Your task to perform on an android device: Open the phone app and click the voicemail tab. Image 0: 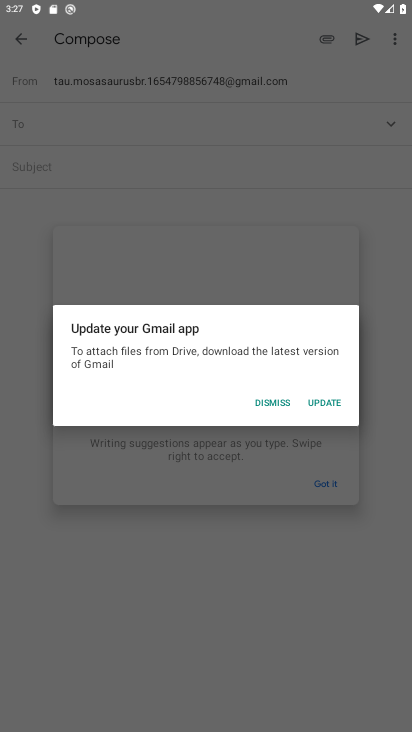
Step 0: press back button
Your task to perform on an android device: Open the phone app and click the voicemail tab. Image 1: 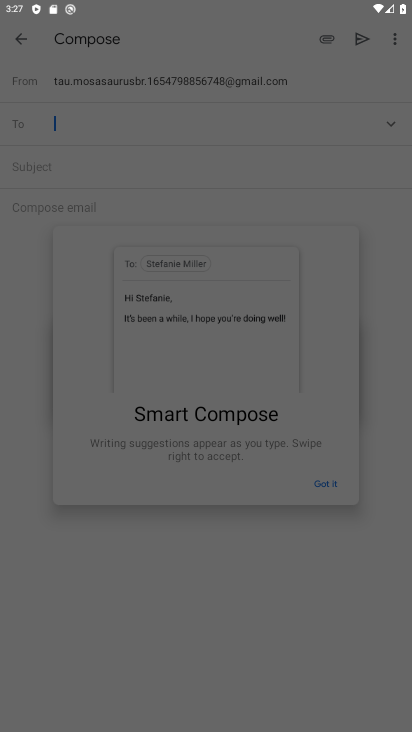
Step 1: press back button
Your task to perform on an android device: Open the phone app and click the voicemail tab. Image 2: 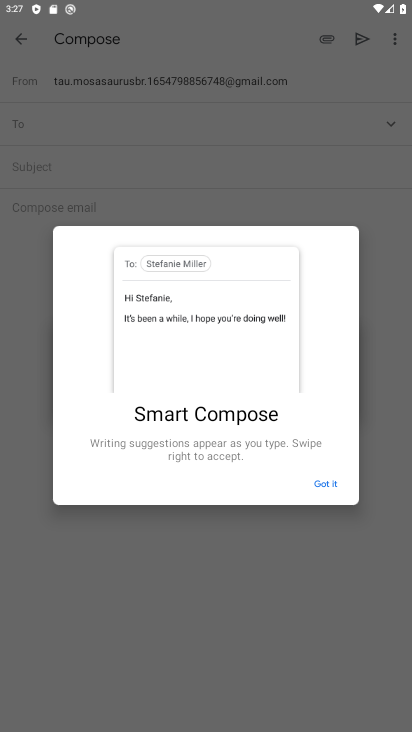
Step 2: press back button
Your task to perform on an android device: Open the phone app and click the voicemail tab. Image 3: 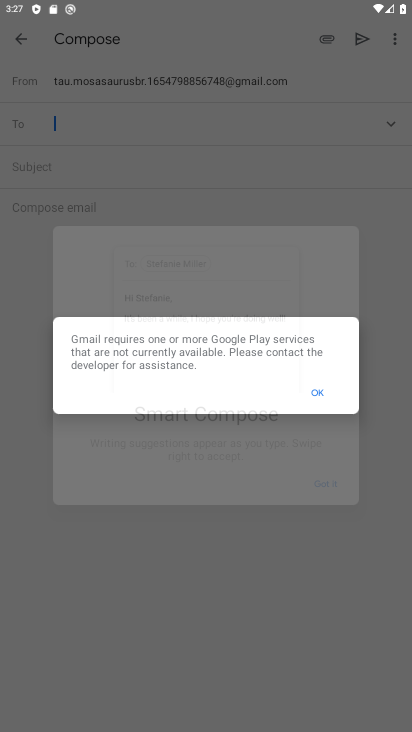
Step 3: press back button
Your task to perform on an android device: Open the phone app and click the voicemail tab. Image 4: 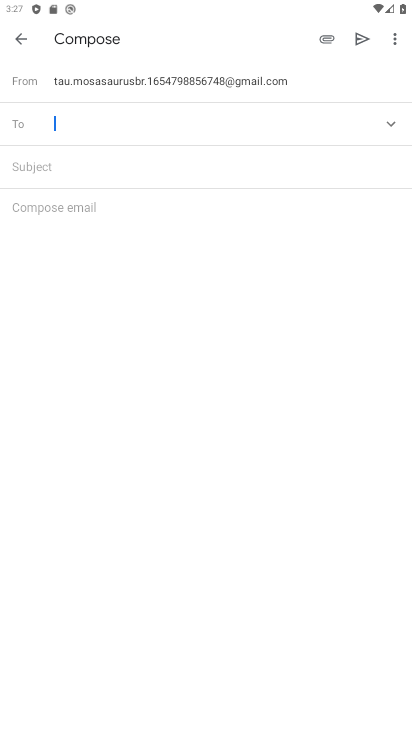
Step 4: press back button
Your task to perform on an android device: Open the phone app and click the voicemail tab. Image 5: 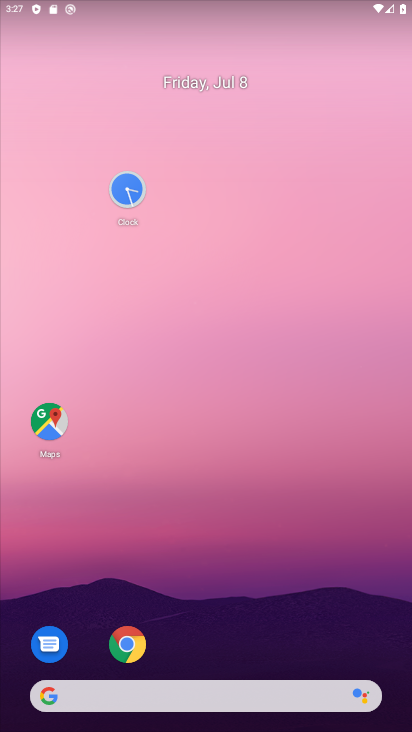
Step 5: drag from (262, 690) to (183, 406)
Your task to perform on an android device: Open the phone app and click the voicemail tab. Image 6: 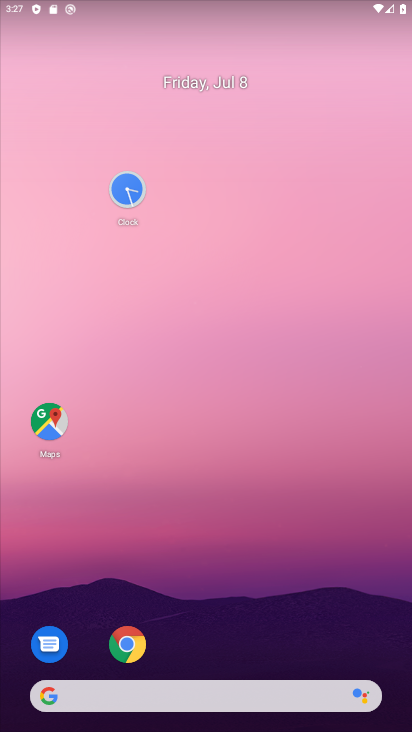
Step 6: drag from (230, 612) to (177, 296)
Your task to perform on an android device: Open the phone app and click the voicemail tab. Image 7: 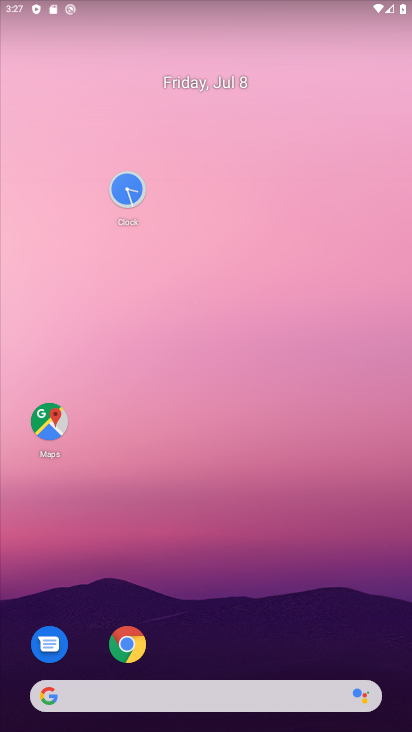
Step 7: drag from (220, 219) to (208, 117)
Your task to perform on an android device: Open the phone app and click the voicemail tab. Image 8: 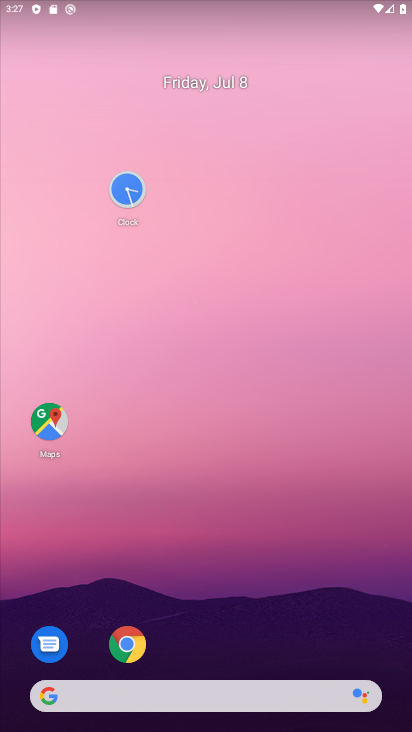
Step 8: drag from (274, 559) to (182, 96)
Your task to perform on an android device: Open the phone app and click the voicemail tab. Image 9: 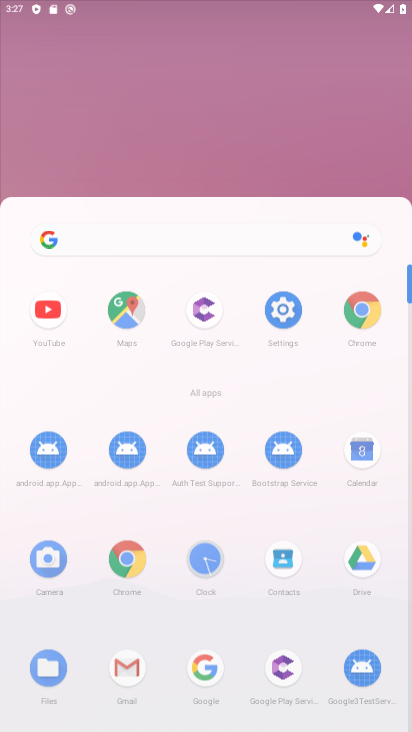
Step 9: drag from (223, 287) to (213, 220)
Your task to perform on an android device: Open the phone app and click the voicemail tab. Image 10: 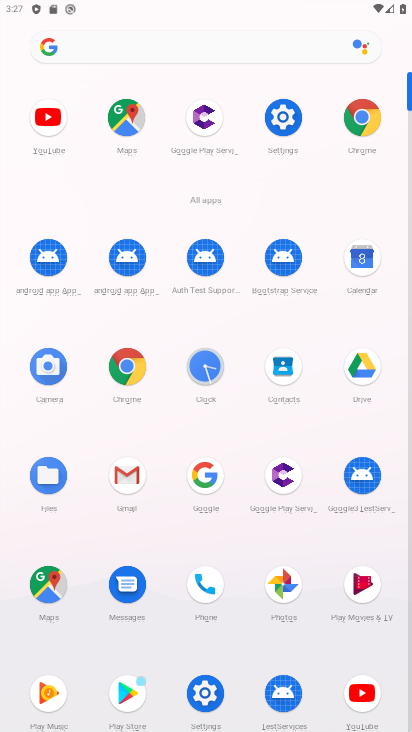
Step 10: click (202, 434)
Your task to perform on an android device: Open the phone app and click the voicemail tab. Image 11: 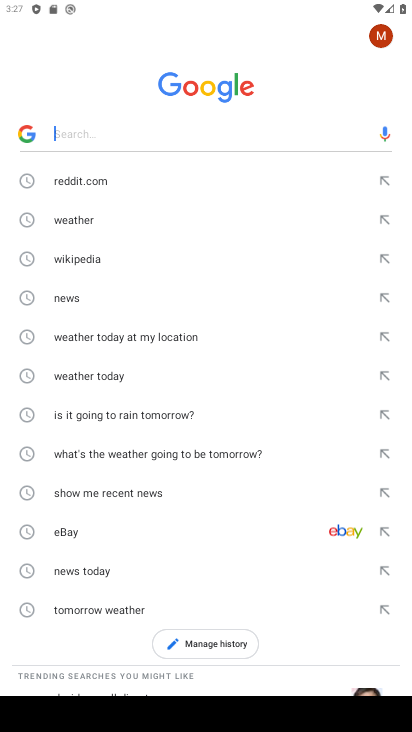
Step 11: press back button
Your task to perform on an android device: Open the phone app and click the voicemail tab. Image 12: 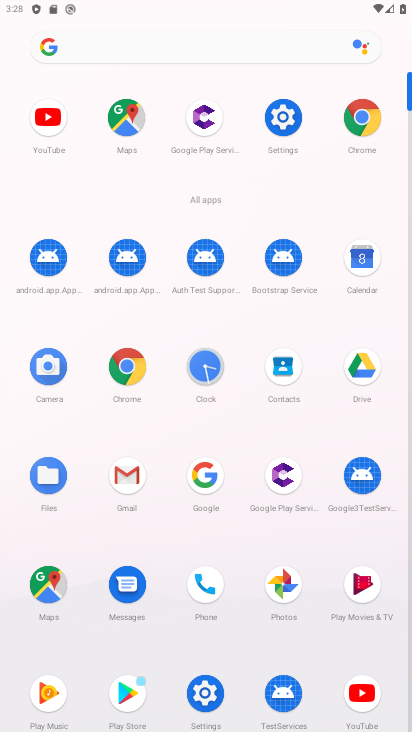
Step 12: click (200, 594)
Your task to perform on an android device: Open the phone app and click the voicemail tab. Image 13: 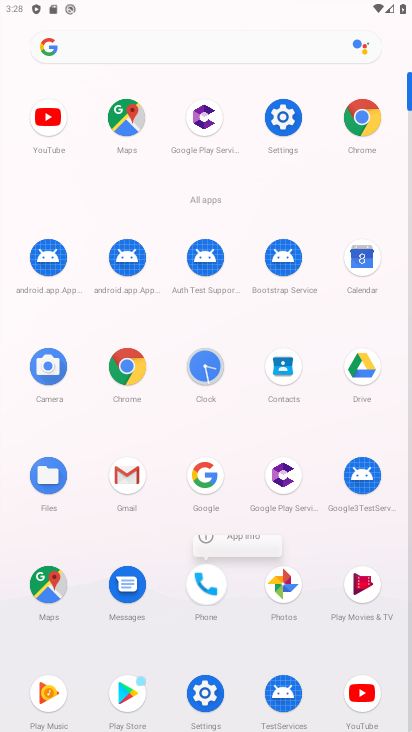
Step 13: click (198, 594)
Your task to perform on an android device: Open the phone app and click the voicemail tab. Image 14: 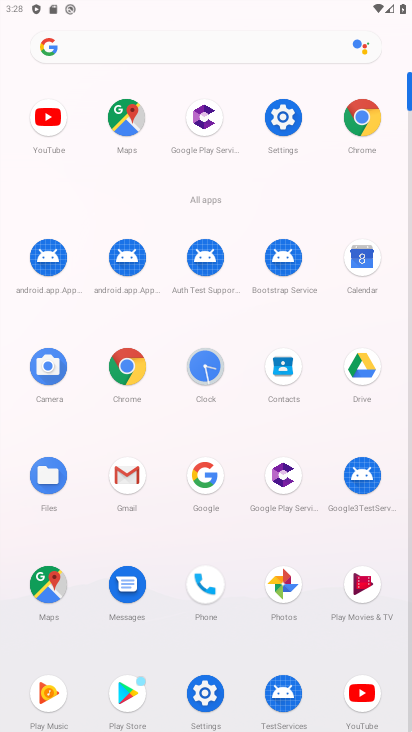
Step 14: click (198, 594)
Your task to perform on an android device: Open the phone app and click the voicemail tab. Image 15: 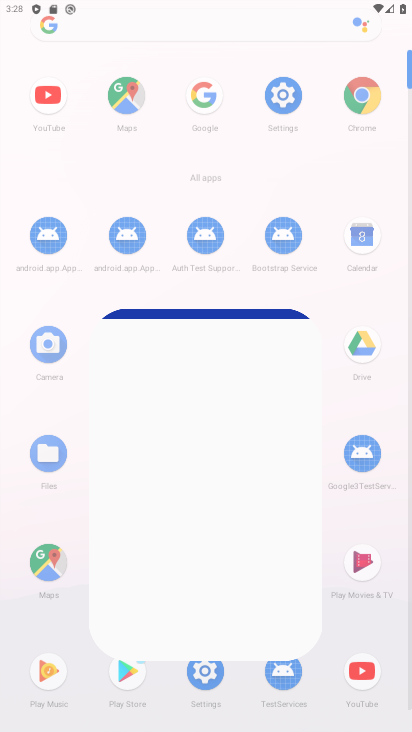
Step 15: click (198, 594)
Your task to perform on an android device: Open the phone app and click the voicemail tab. Image 16: 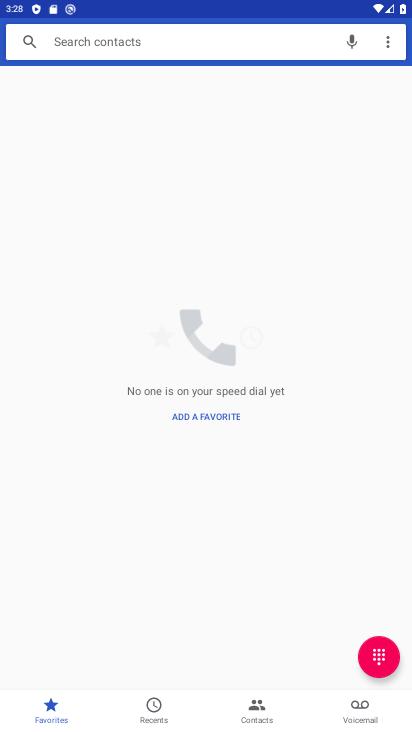
Step 16: click (344, 700)
Your task to perform on an android device: Open the phone app and click the voicemail tab. Image 17: 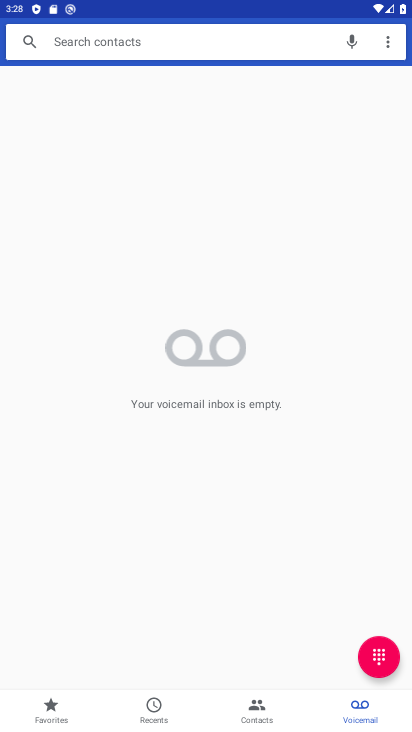
Step 17: task complete